Your task to perform on an android device: open sync settings in chrome Image 0: 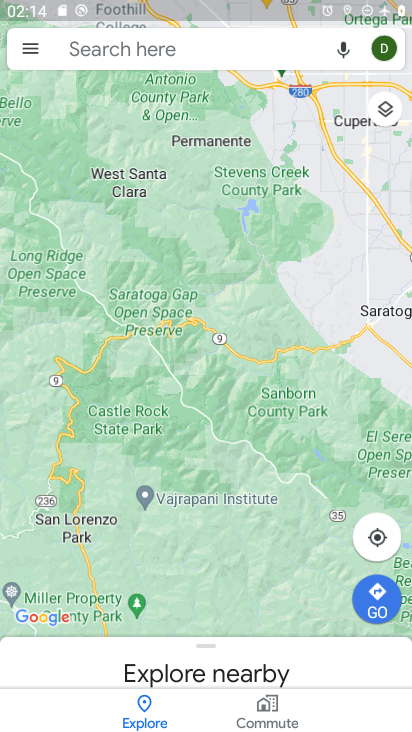
Step 0: press home button
Your task to perform on an android device: open sync settings in chrome Image 1: 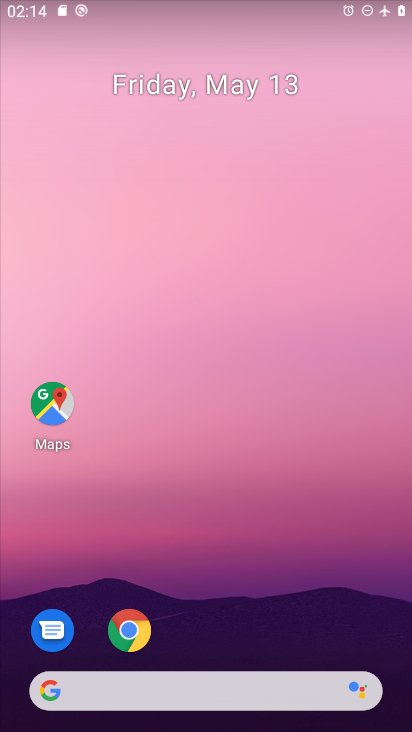
Step 1: drag from (175, 713) to (342, 146)
Your task to perform on an android device: open sync settings in chrome Image 2: 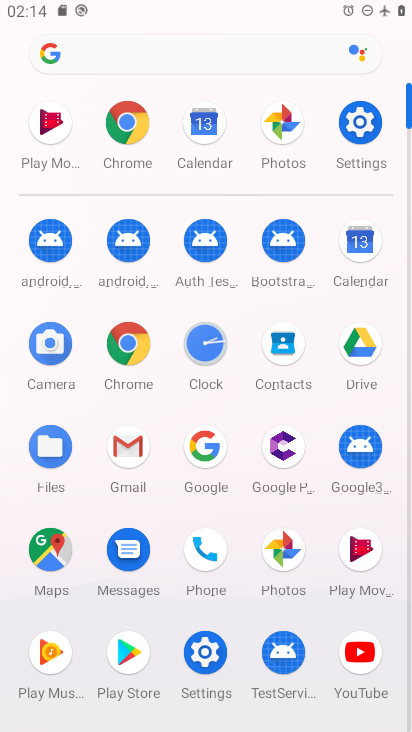
Step 2: click (138, 130)
Your task to perform on an android device: open sync settings in chrome Image 3: 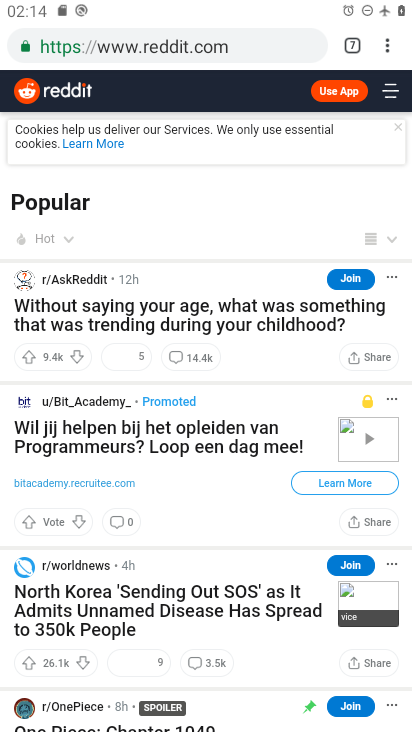
Step 3: click (383, 56)
Your task to perform on an android device: open sync settings in chrome Image 4: 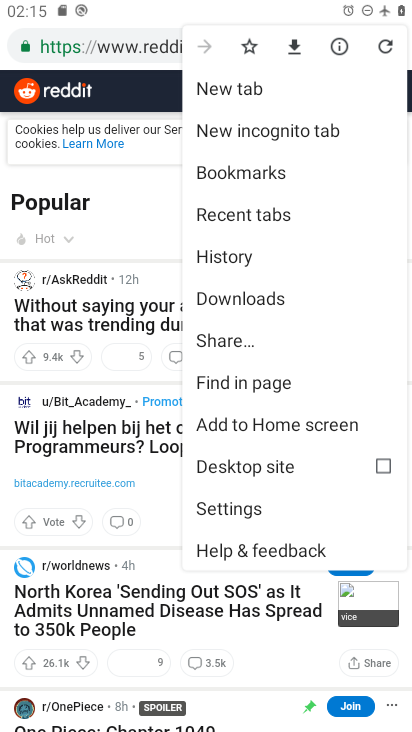
Step 4: click (226, 501)
Your task to perform on an android device: open sync settings in chrome Image 5: 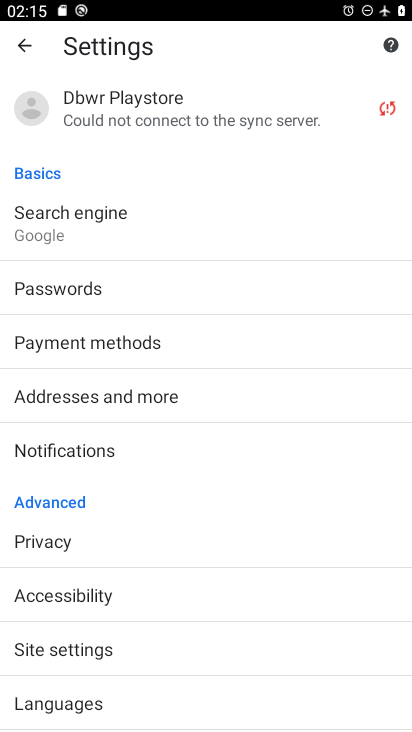
Step 5: click (100, 651)
Your task to perform on an android device: open sync settings in chrome Image 6: 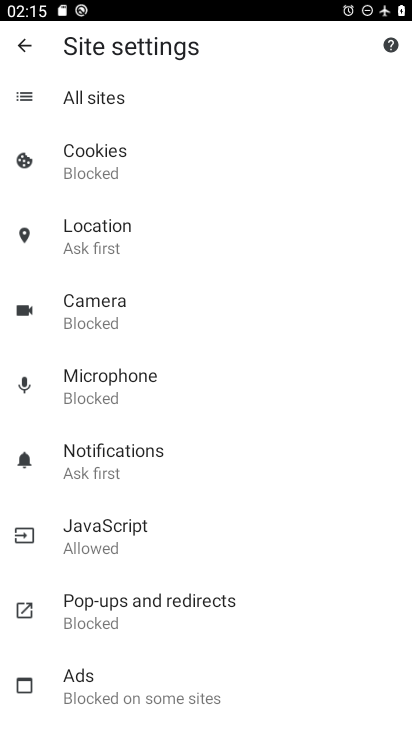
Step 6: drag from (161, 592) to (176, 426)
Your task to perform on an android device: open sync settings in chrome Image 7: 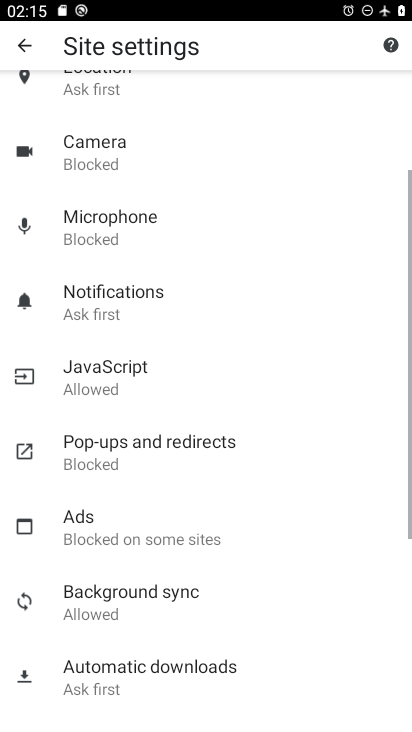
Step 7: click (138, 609)
Your task to perform on an android device: open sync settings in chrome Image 8: 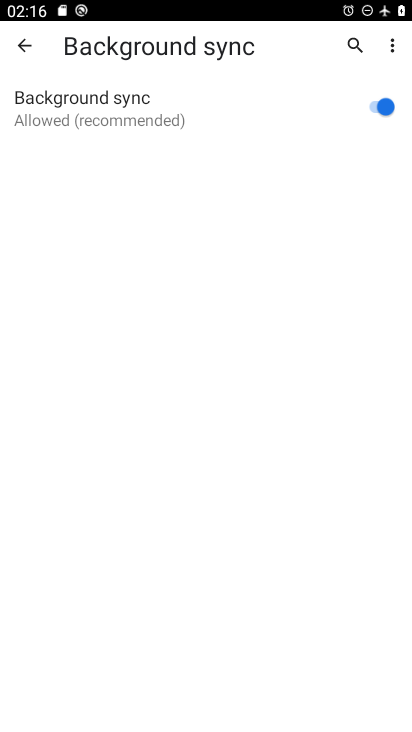
Step 8: task complete